Your task to perform on an android device: turn off notifications in google photos Image 0: 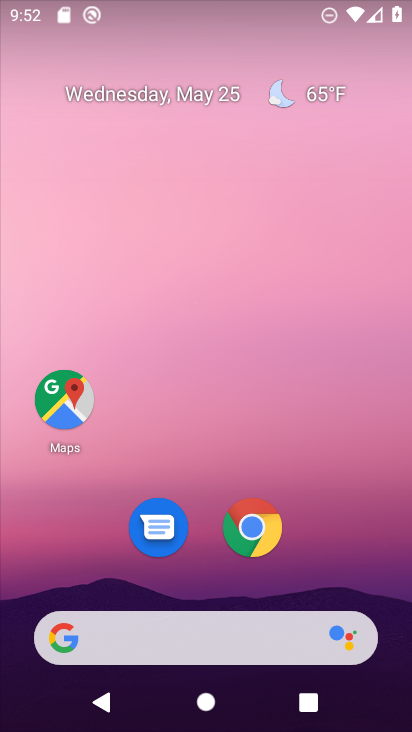
Step 0: drag from (336, 550) to (290, 7)
Your task to perform on an android device: turn off notifications in google photos Image 1: 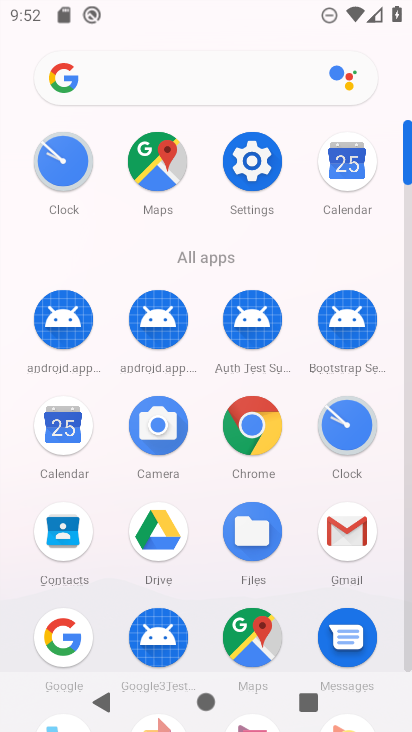
Step 1: drag from (214, 493) to (238, 234)
Your task to perform on an android device: turn off notifications in google photos Image 2: 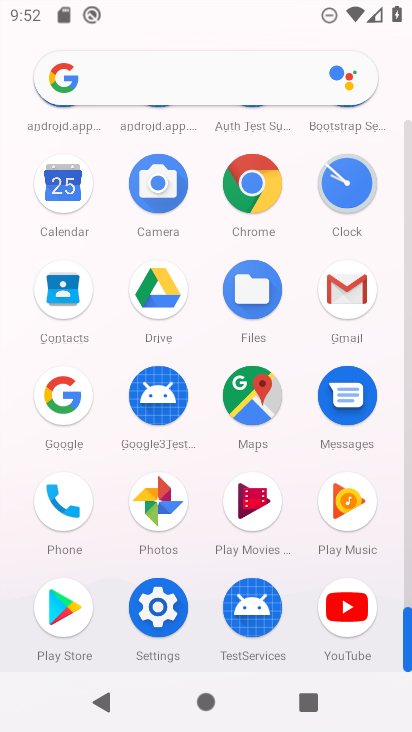
Step 2: click (160, 501)
Your task to perform on an android device: turn off notifications in google photos Image 3: 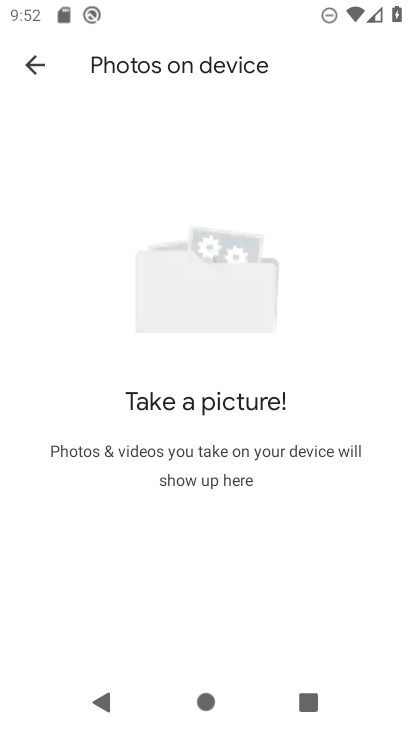
Step 3: click (35, 59)
Your task to perform on an android device: turn off notifications in google photos Image 4: 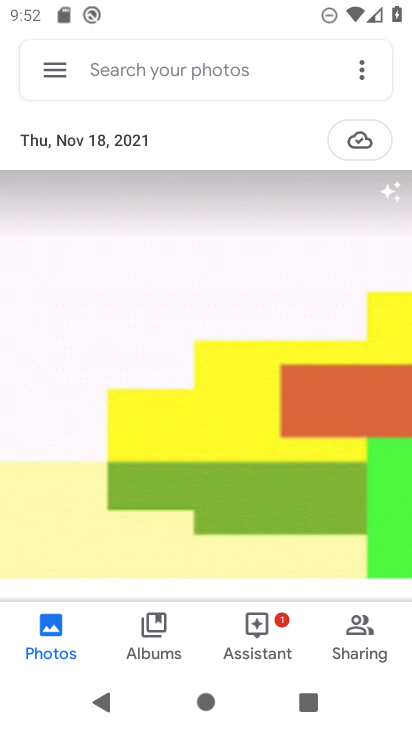
Step 4: click (54, 70)
Your task to perform on an android device: turn off notifications in google photos Image 5: 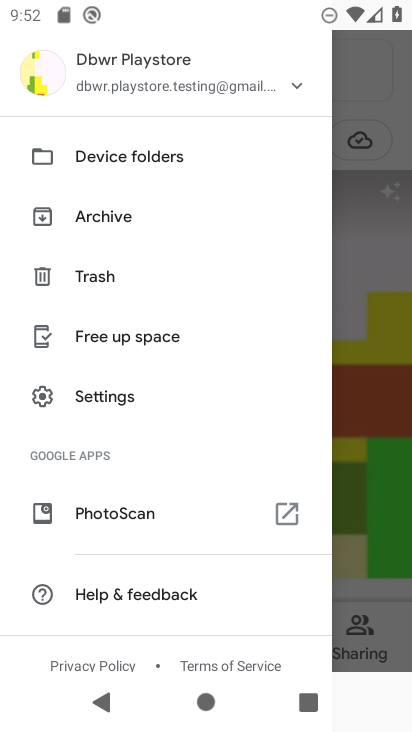
Step 5: click (103, 398)
Your task to perform on an android device: turn off notifications in google photos Image 6: 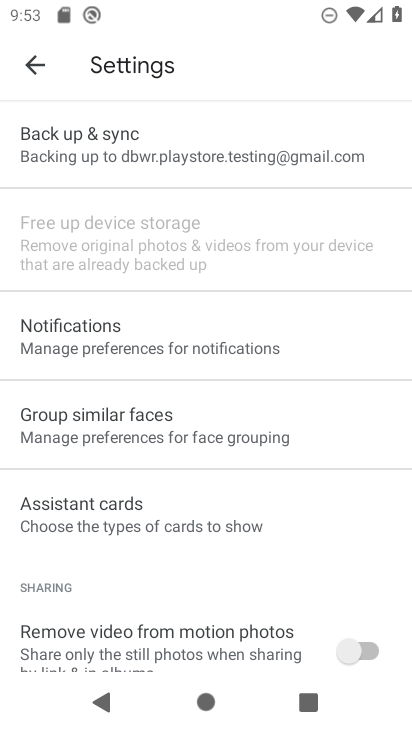
Step 6: click (94, 339)
Your task to perform on an android device: turn off notifications in google photos Image 7: 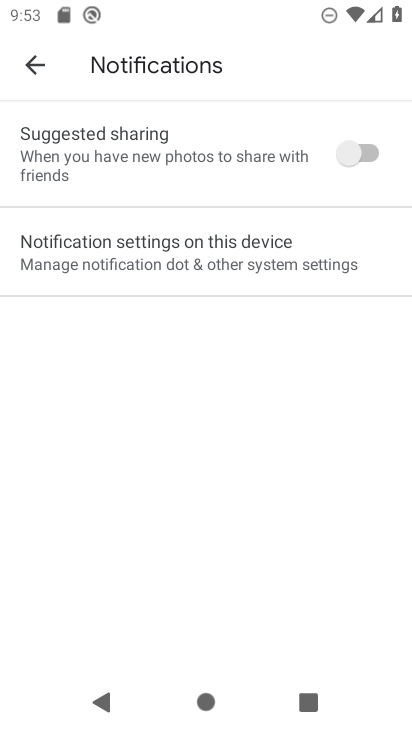
Step 7: click (129, 257)
Your task to perform on an android device: turn off notifications in google photos Image 8: 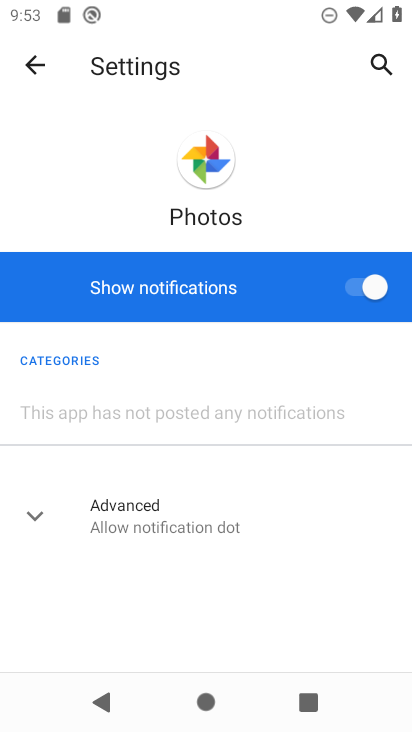
Step 8: click (360, 292)
Your task to perform on an android device: turn off notifications in google photos Image 9: 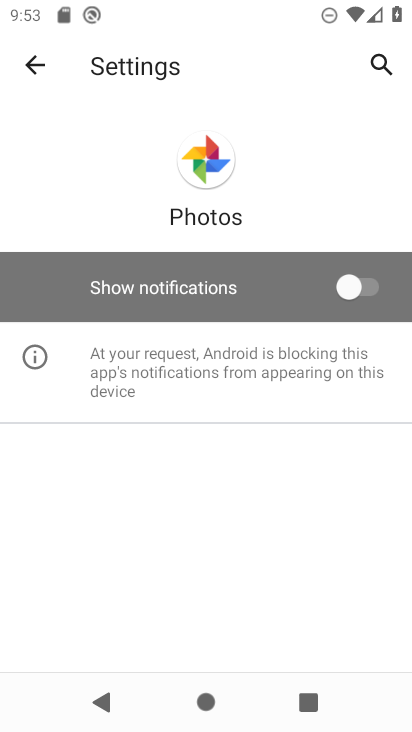
Step 9: task complete